Your task to perform on an android device: toggle javascript in the chrome app Image 0: 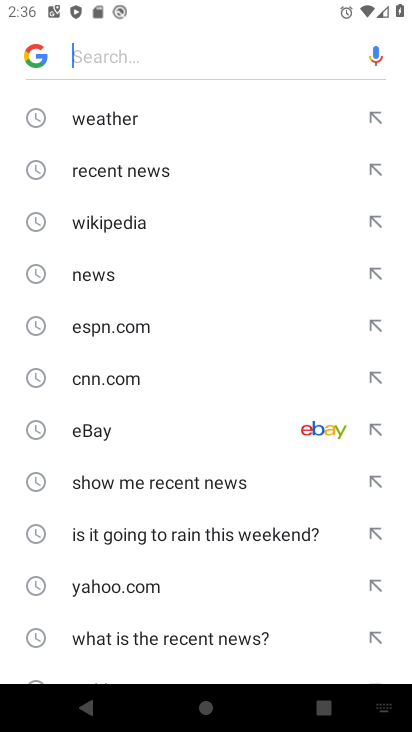
Step 0: press back button
Your task to perform on an android device: toggle javascript in the chrome app Image 1: 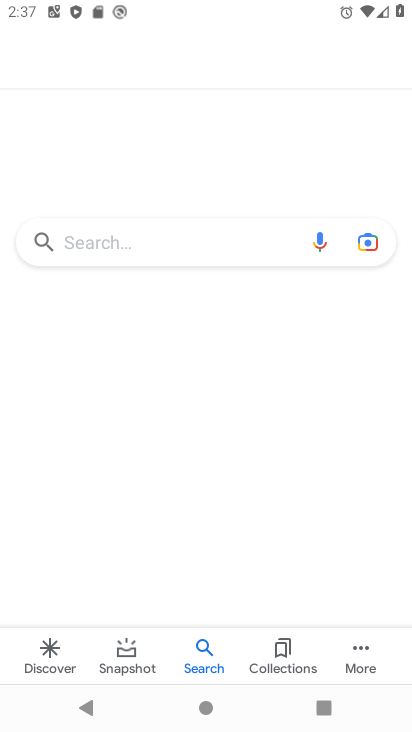
Step 1: press back button
Your task to perform on an android device: toggle javascript in the chrome app Image 2: 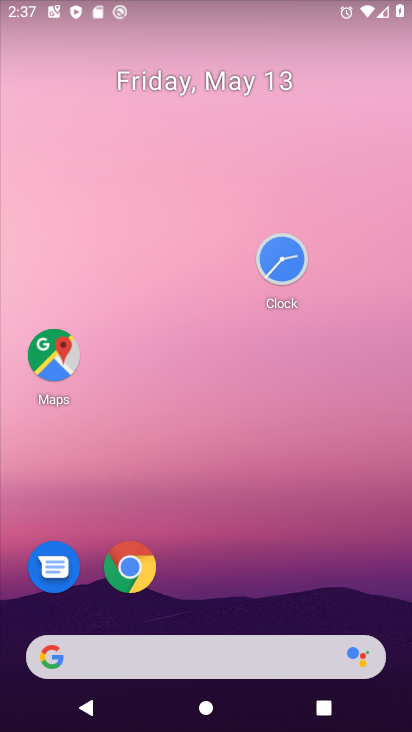
Step 2: click (128, 562)
Your task to perform on an android device: toggle javascript in the chrome app Image 3: 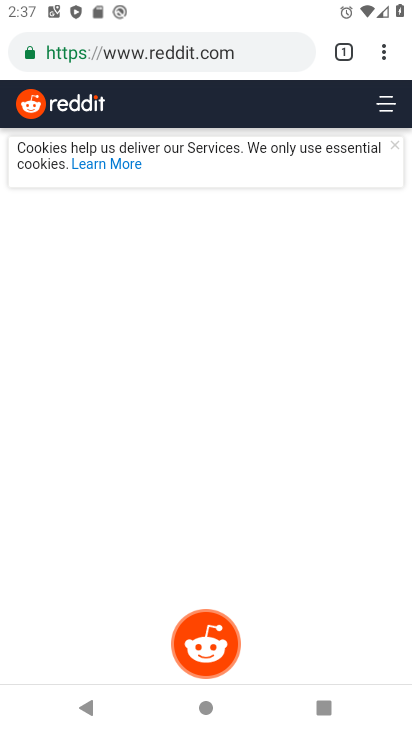
Step 3: click (391, 49)
Your task to perform on an android device: toggle javascript in the chrome app Image 4: 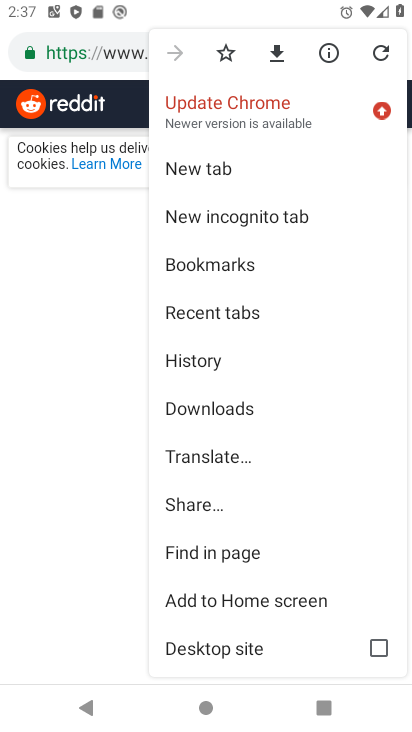
Step 4: drag from (242, 593) to (264, 310)
Your task to perform on an android device: toggle javascript in the chrome app Image 5: 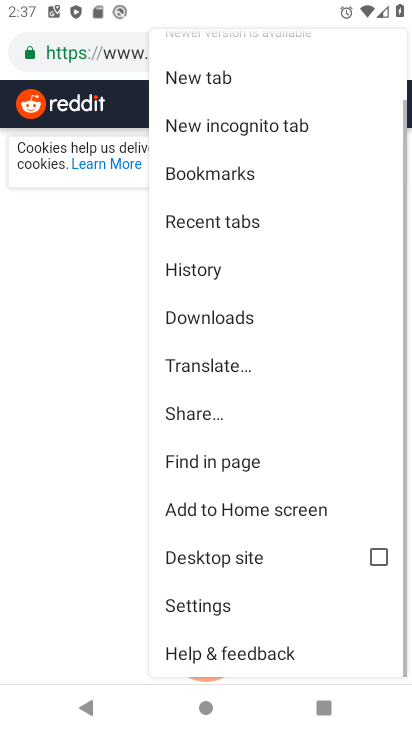
Step 5: click (231, 595)
Your task to perform on an android device: toggle javascript in the chrome app Image 6: 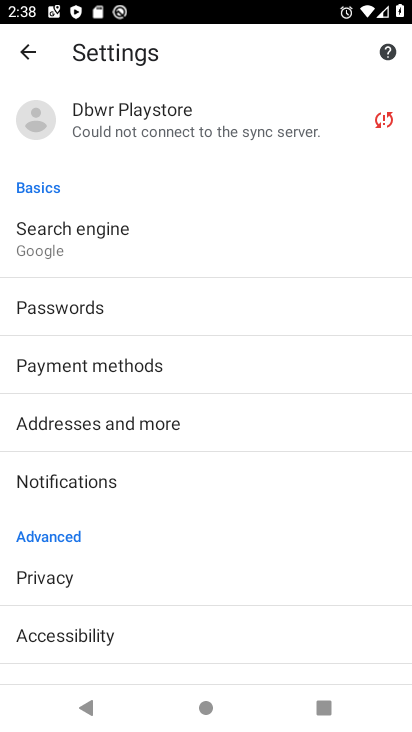
Step 6: drag from (191, 495) to (198, 203)
Your task to perform on an android device: toggle javascript in the chrome app Image 7: 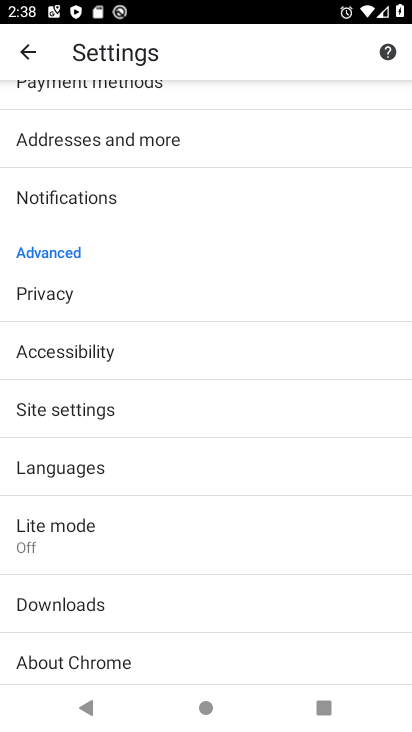
Step 7: click (212, 404)
Your task to perform on an android device: toggle javascript in the chrome app Image 8: 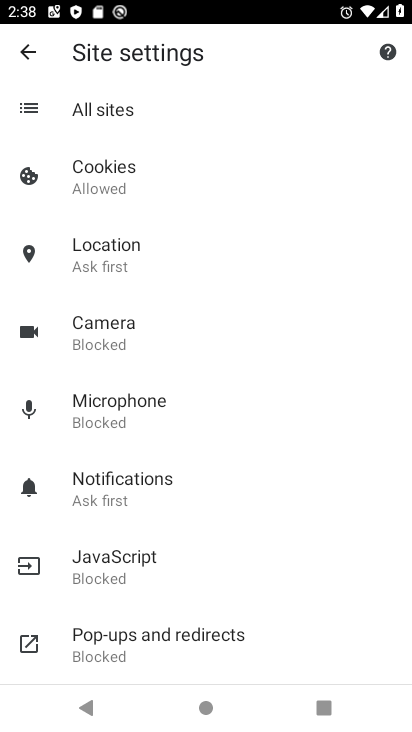
Step 8: click (179, 556)
Your task to perform on an android device: toggle javascript in the chrome app Image 9: 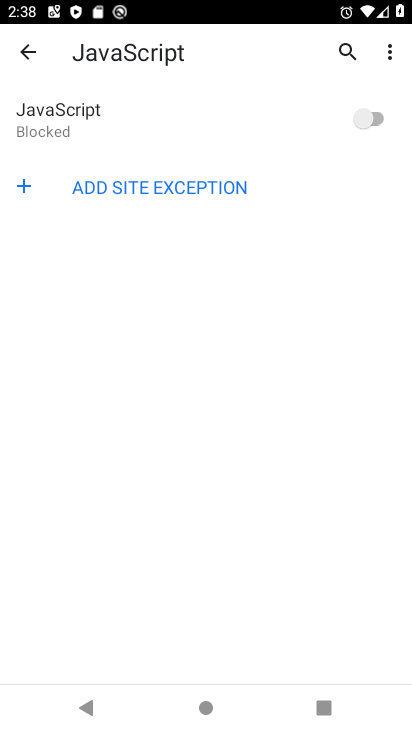
Step 9: click (370, 137)
Your task to perform on an android device: toggle javascript in the chrome app Image 10: 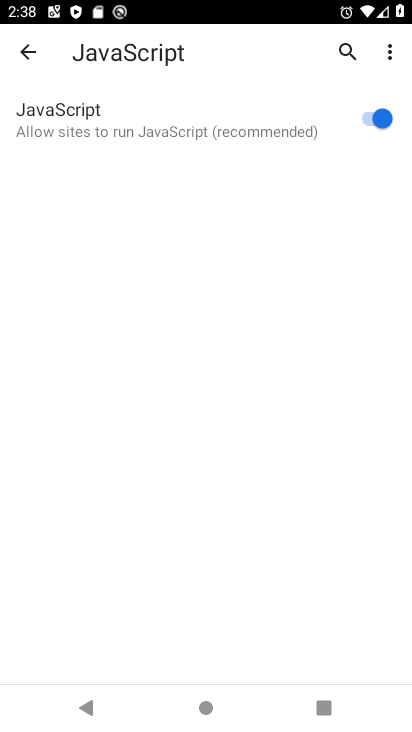
Step 10: task complete